Your task to perform on an android device: Go to privacy settings Image 0: 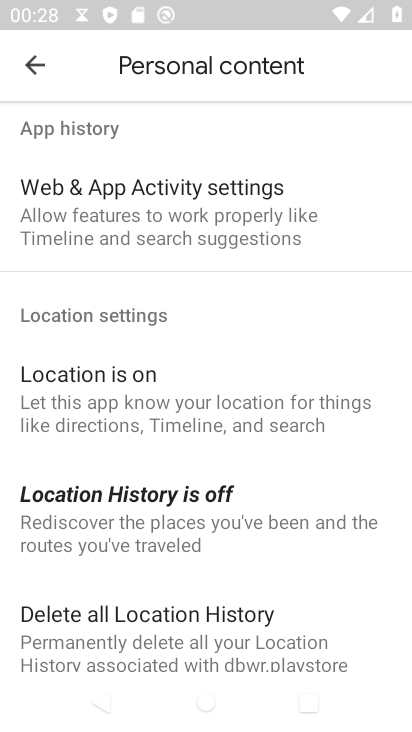
Step 0: press home button
Your task to perform on an android device: Go to privacy settings Image 1: 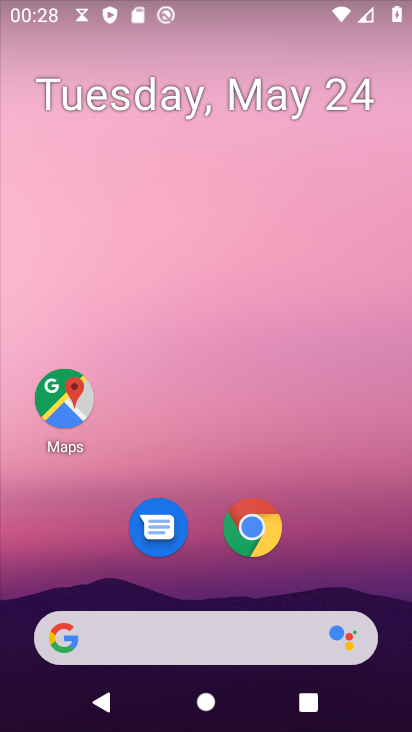
Step 1: drag from (192, 637) to (298, 171)
Your task to perform on an android device: Go to privacy settings Image 2: 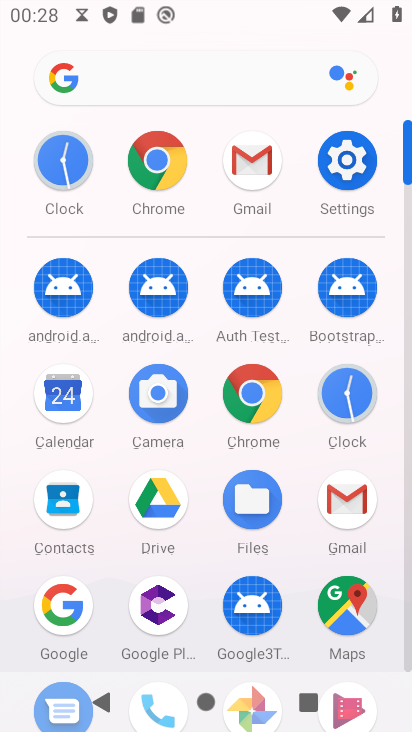
Step 2: click (349, 170)
Your task to perform on an android device: Go to privacy settings Image 3: 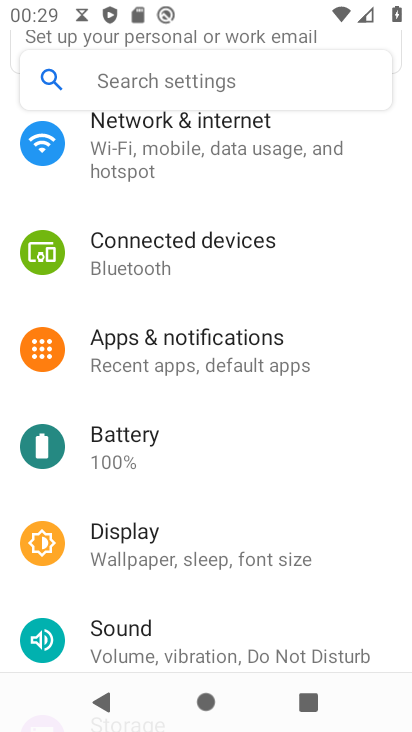
Step 3: drag from (193, 491) to (332, 58)
Your task to perform on an android device: Go to privacy settings Image 4: 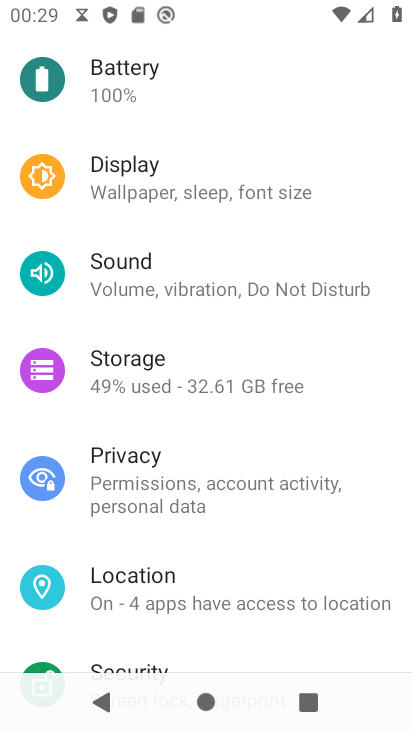
Step 4: click (137, 480)
Your task to perform on an android device: Go to privacy settings Image 5: 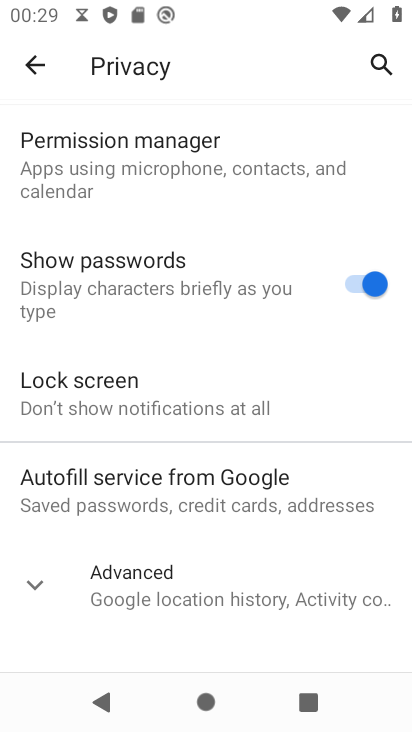
Step 5: task complete